Your task to perform on an android device: Show me recent news Image 0: 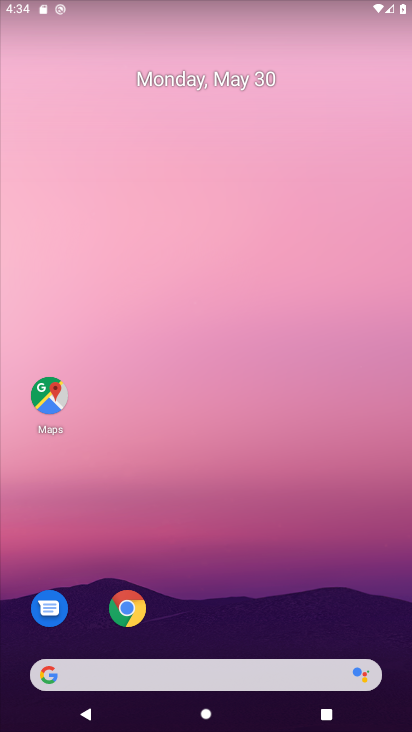
Step 0: drag from (187, 649) to (180, 273)
Your task to perform on an android device: Show me recent news Image 1: 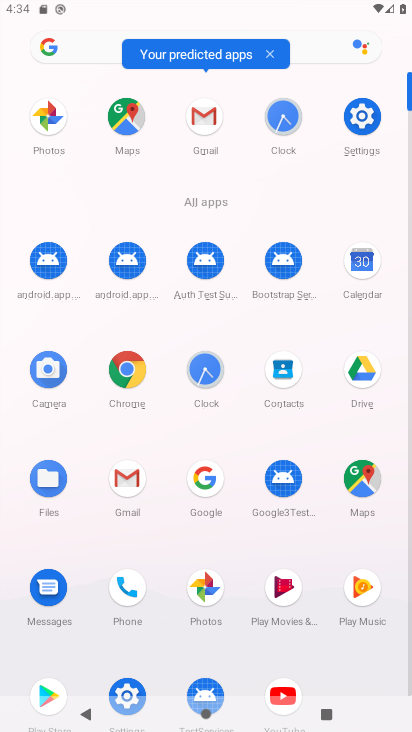
Step 1: click (213, 478)
Your task to perform on an android device: Show me recent news Image 2: 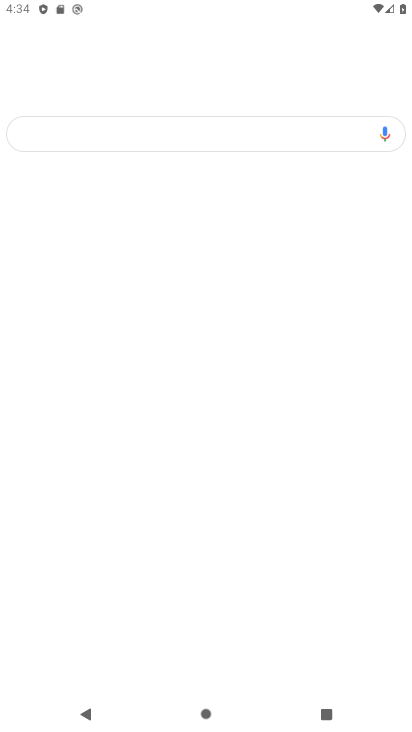
Step 2: click (100, 141)
Your task to perform on an android device: Show me recent news Image 3: 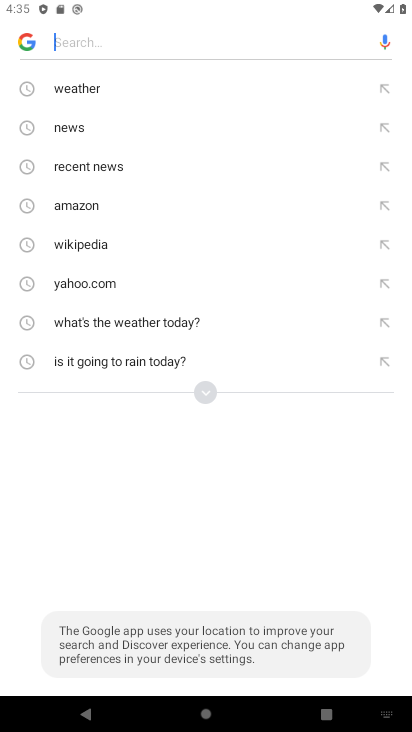
Step 3: click (95, 165)
Your task to perform on an android device: Show me recent news Image 4: 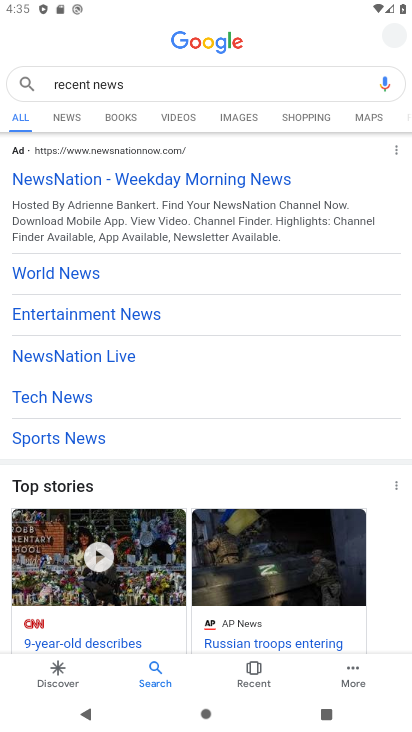
Step 4: task complete